Your task to perform on an android device: turn off picture-in-picture Image 0: 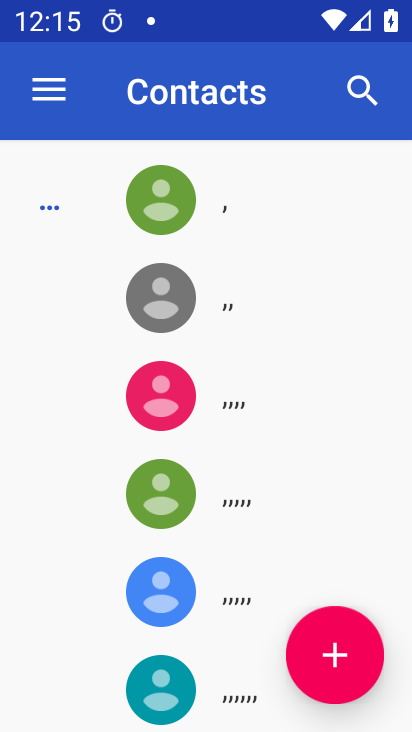
Step 0: press home button
Your task to perform on an android device: turn off picture-in-picture Image 1: 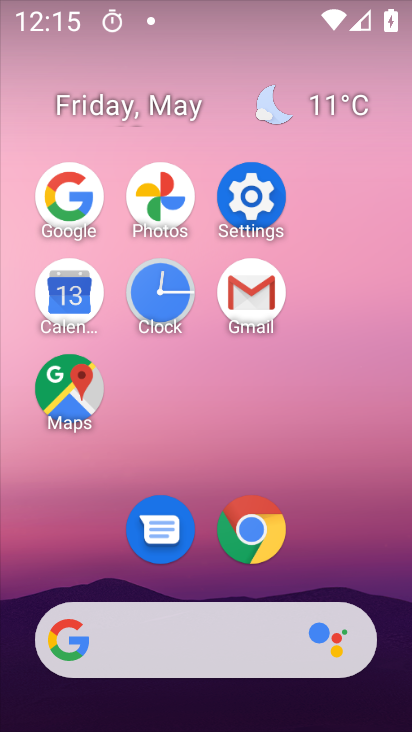
Step 1: click (249, 529)
Your task to perform on an android device: turn off picture-in-picture Image 2: 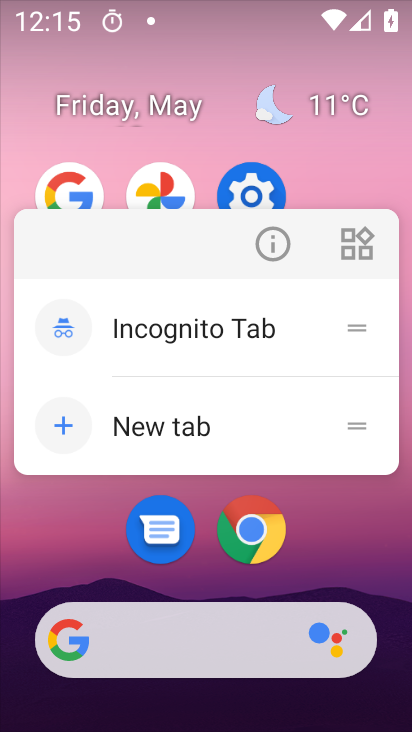
Step 2: click (272, 240)
Your task to perform on an android device: turn off picture-in-picture Image 3: 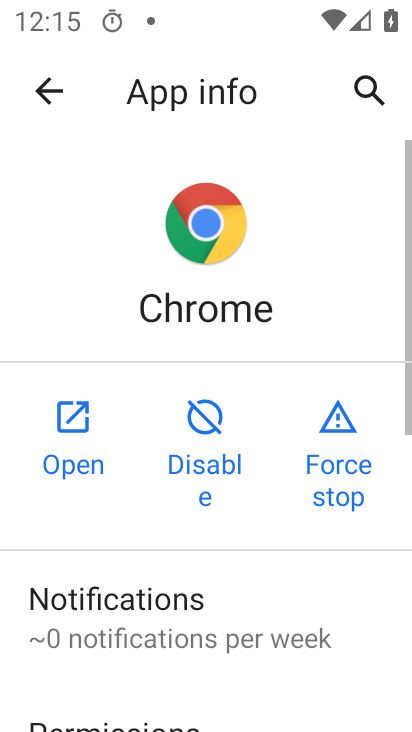
Step 3: drag from (249, 688) to (328, 193)
Your task to perform on an android device: turn off picture-in-picture Image 4: 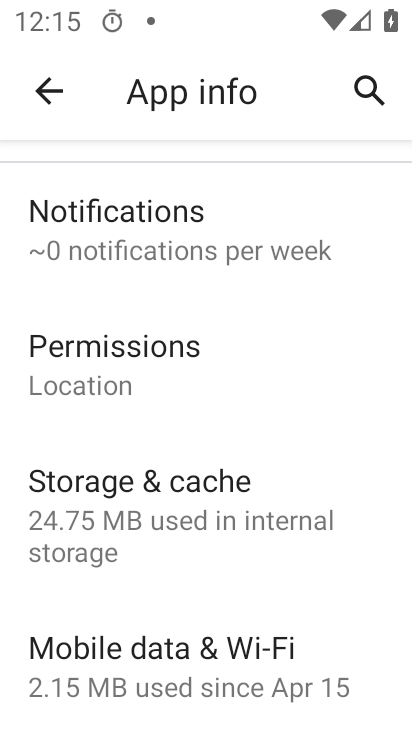
Step 4: drag from (311, 651) to (287, 197)
Your task to perform on an android device: turn off picture-in-picture Image 5: 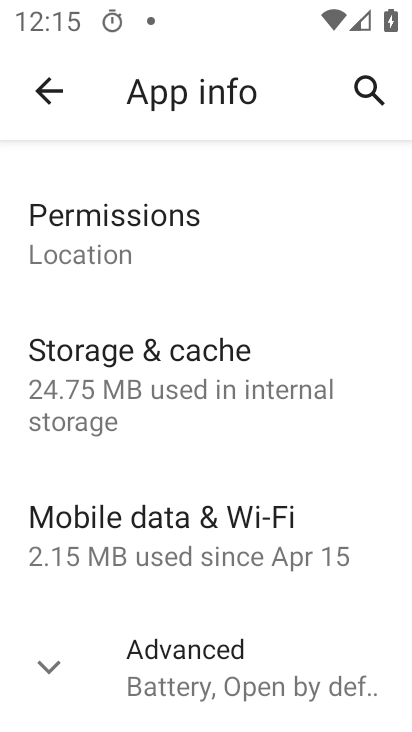
Step 5: click (239, 643)
Your task to perform on an android device: turn off picture-in-picture Image 6: 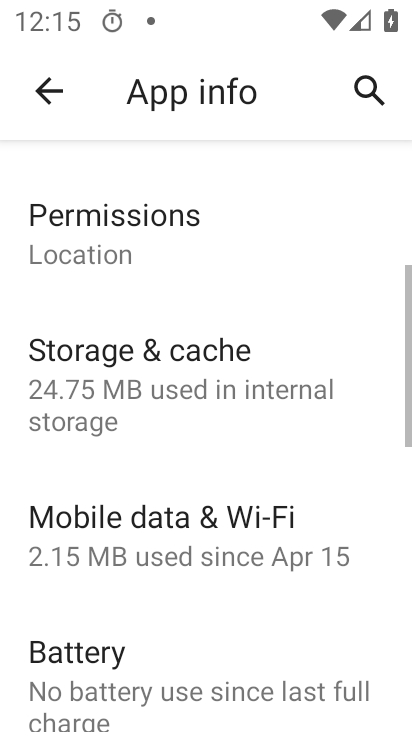
Step 6: drag from (249, 629) to (270, 207)
Your task to perform on an android device: turn off picture-in-picture Image 7: 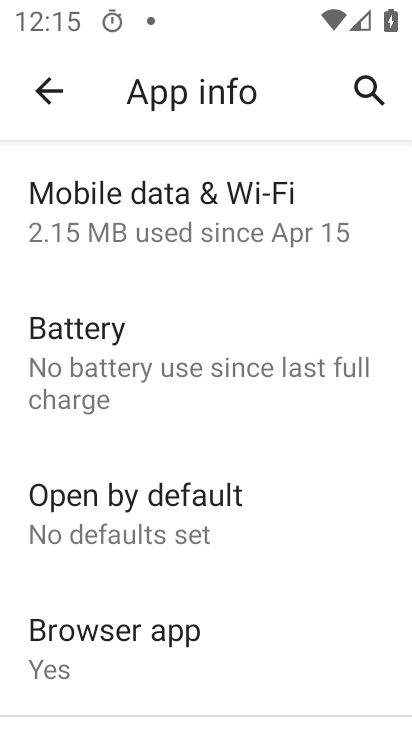
Step 7: drag from (319, 598) to (311, 171)
Your task to perform on an android device: turn off picture-in-picture Image 8: 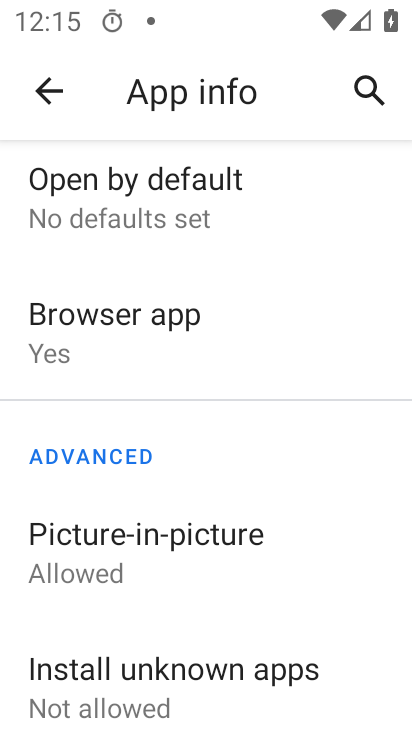
Step 8: click (278, 531)
Your task to perform on an android device: turn off picture-in-picture Image 9: 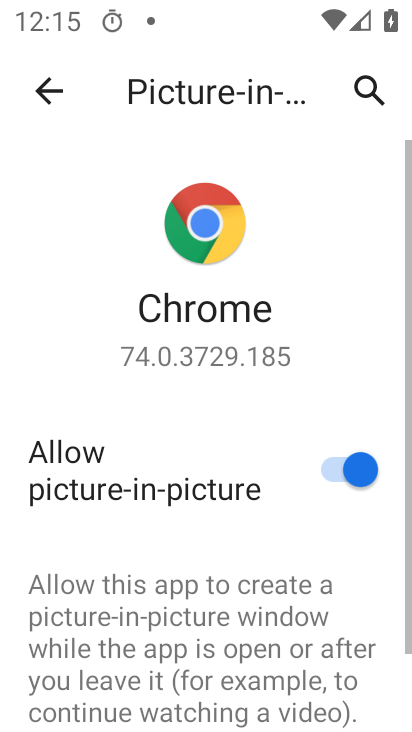
Step 9: click (365, 465)
Your task to perform on an android device: turn off picture-in-picture Image 10: 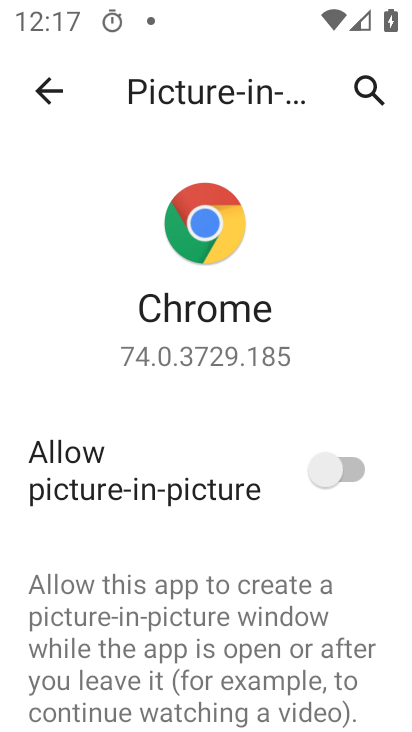
Step 10: task complete